Your task to perform on an android device: Add razer huntsman to the cart on target.com, then select checkout. Image 0: 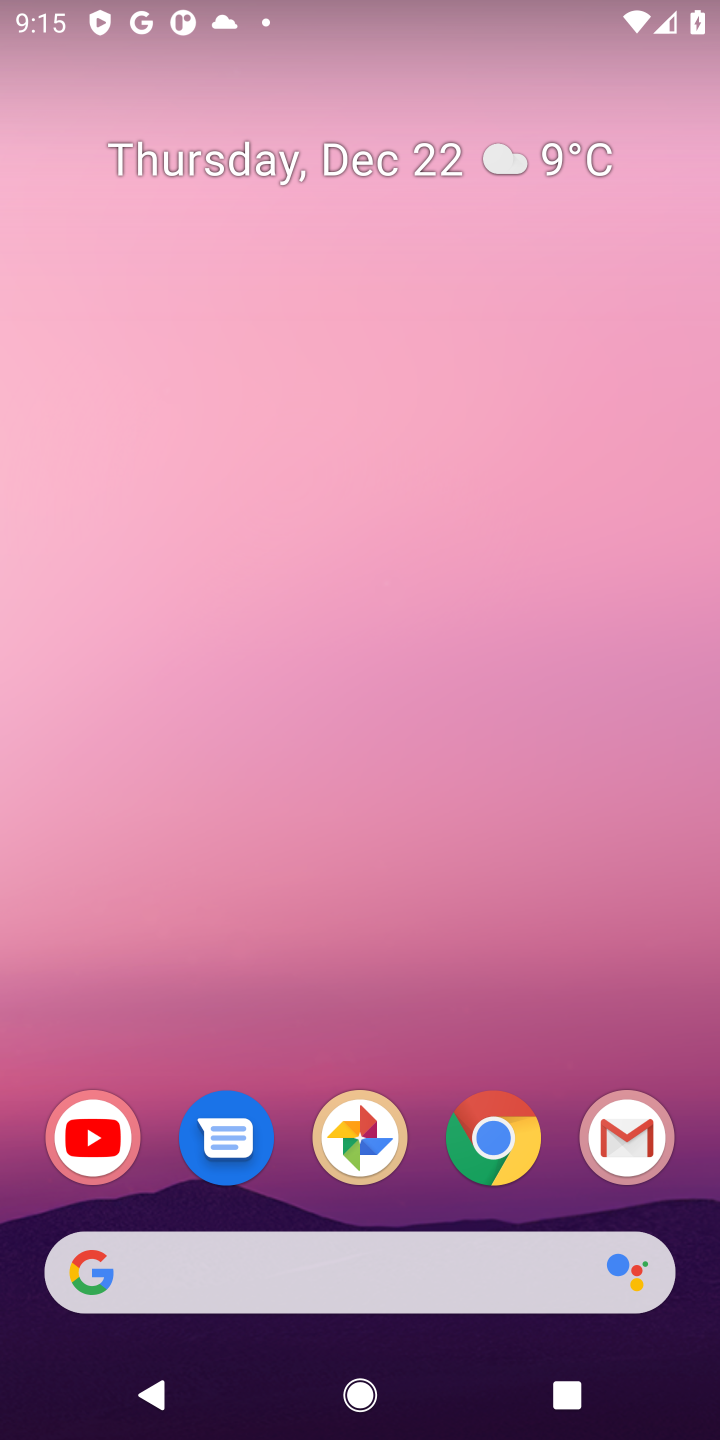
Step 0: click (492, 1138)
Your task to perform on an android device: Add razer huntsman to the cart on target.com, then select checkout. Image 1: 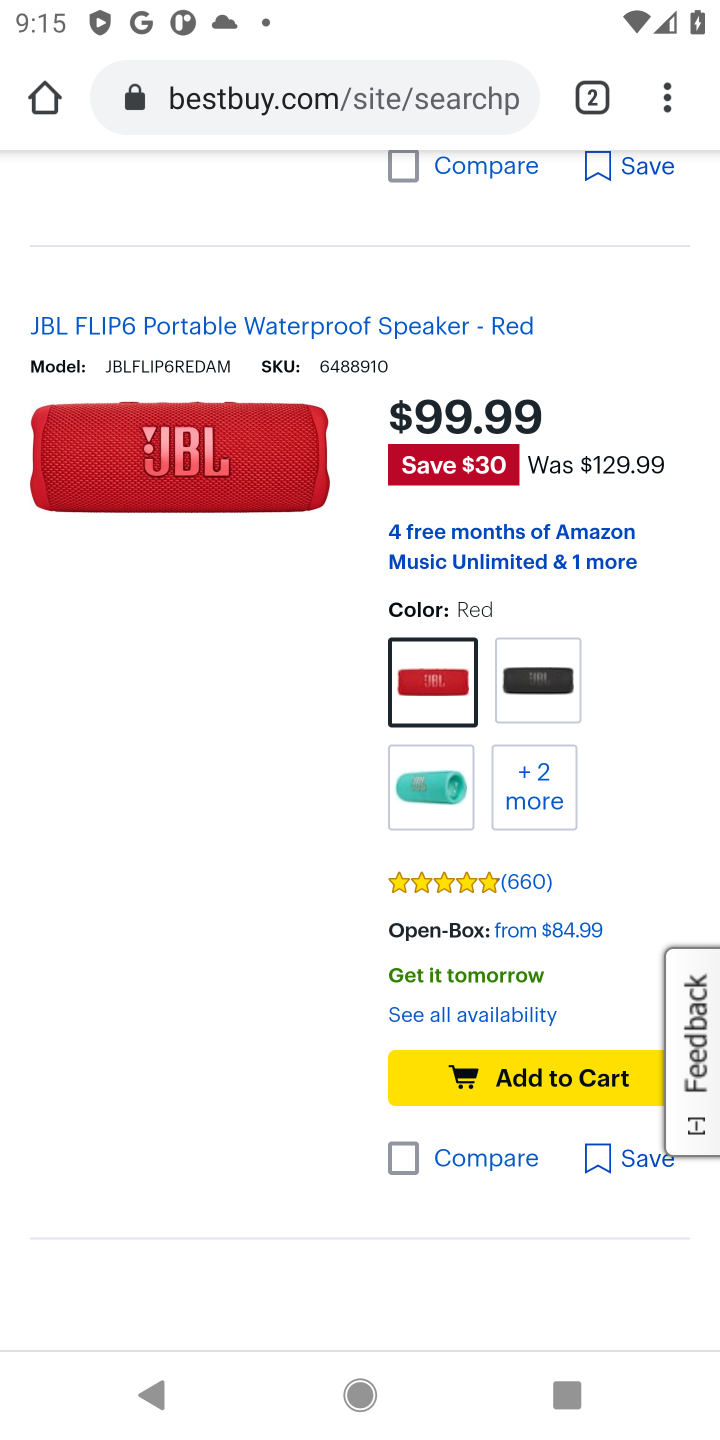
Step 1: click (195, 92)
Your task to perform on an android device: Add razer huntsman to the cart on target.com, then select checkout. Image 2: 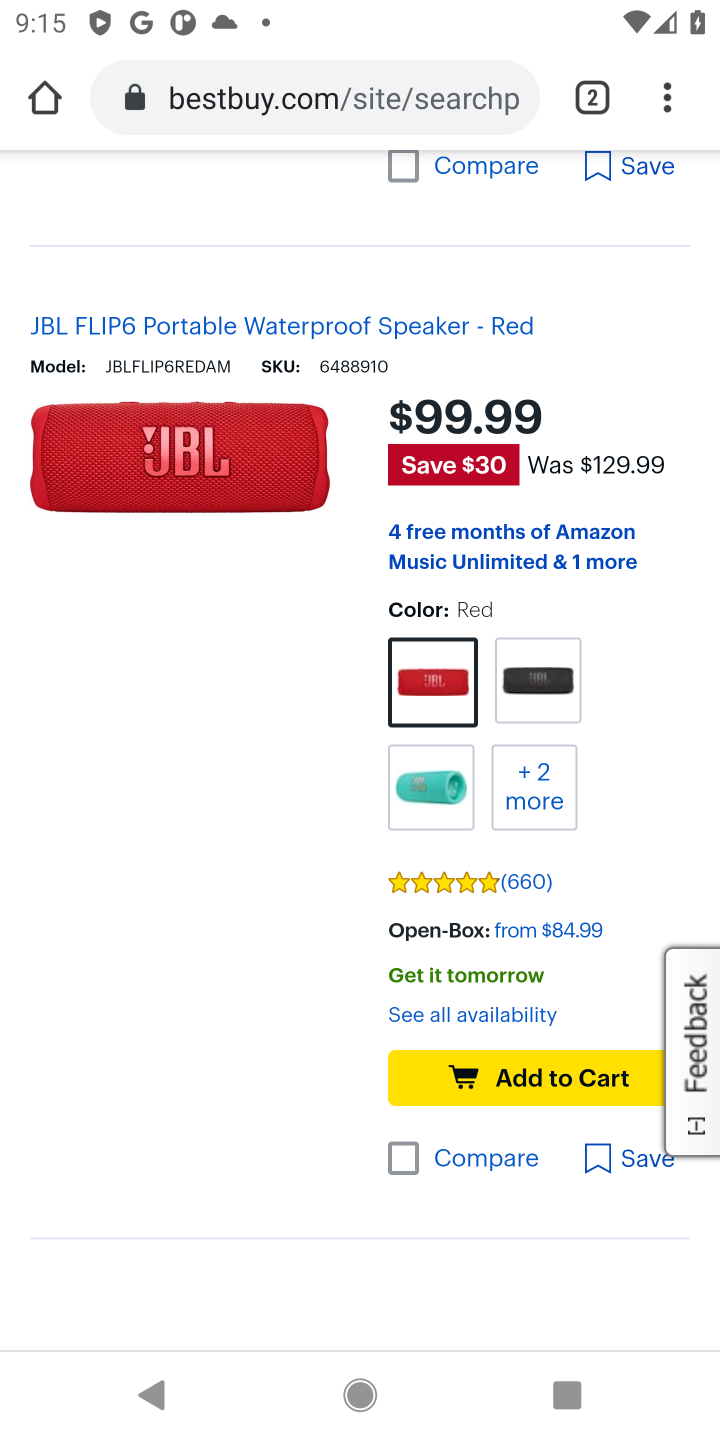
Step 2: click (195, 92)
Your task to perform on an android device: Add razer huntsman to the cart on target.com, then select checkout. Image 3: 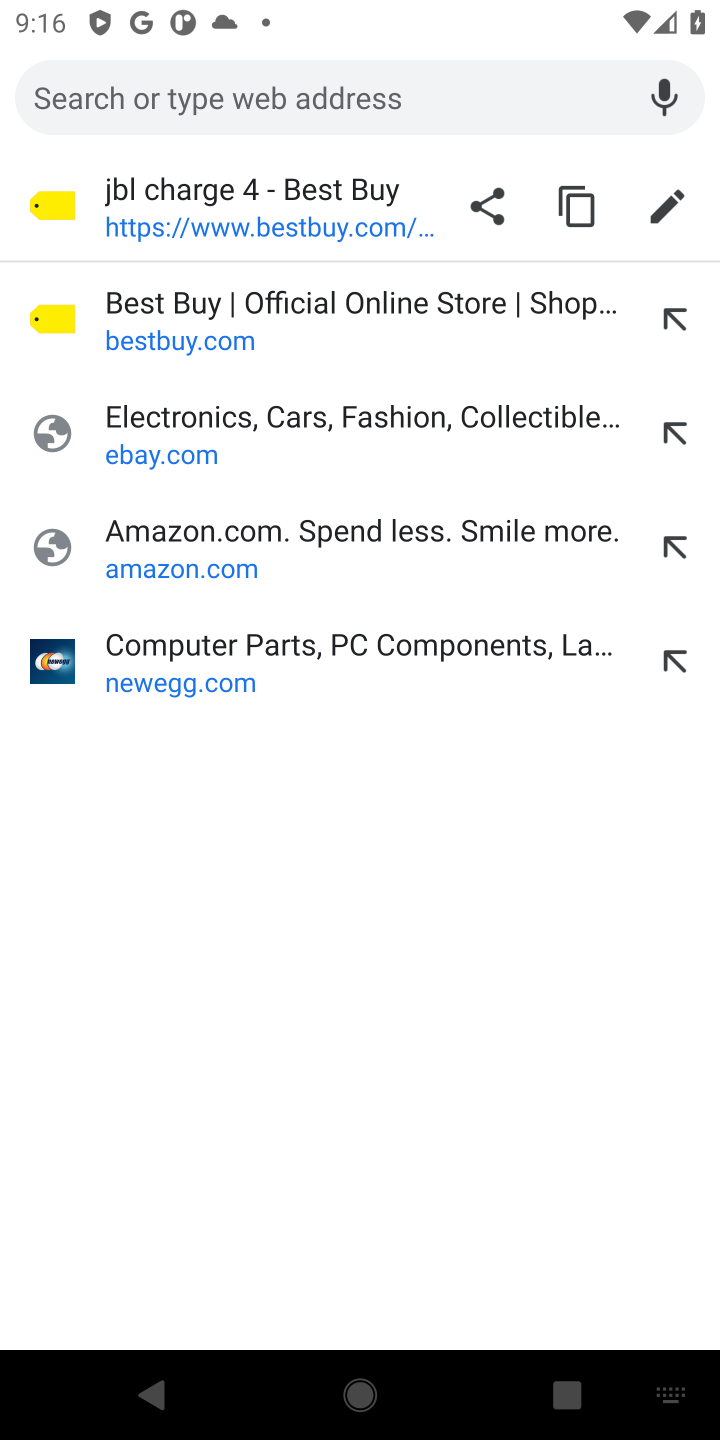
Step 3: type "target"
Your task to perform on an android device: Add razer huntsman to the cart on target.com, then select checkout. Image 4: 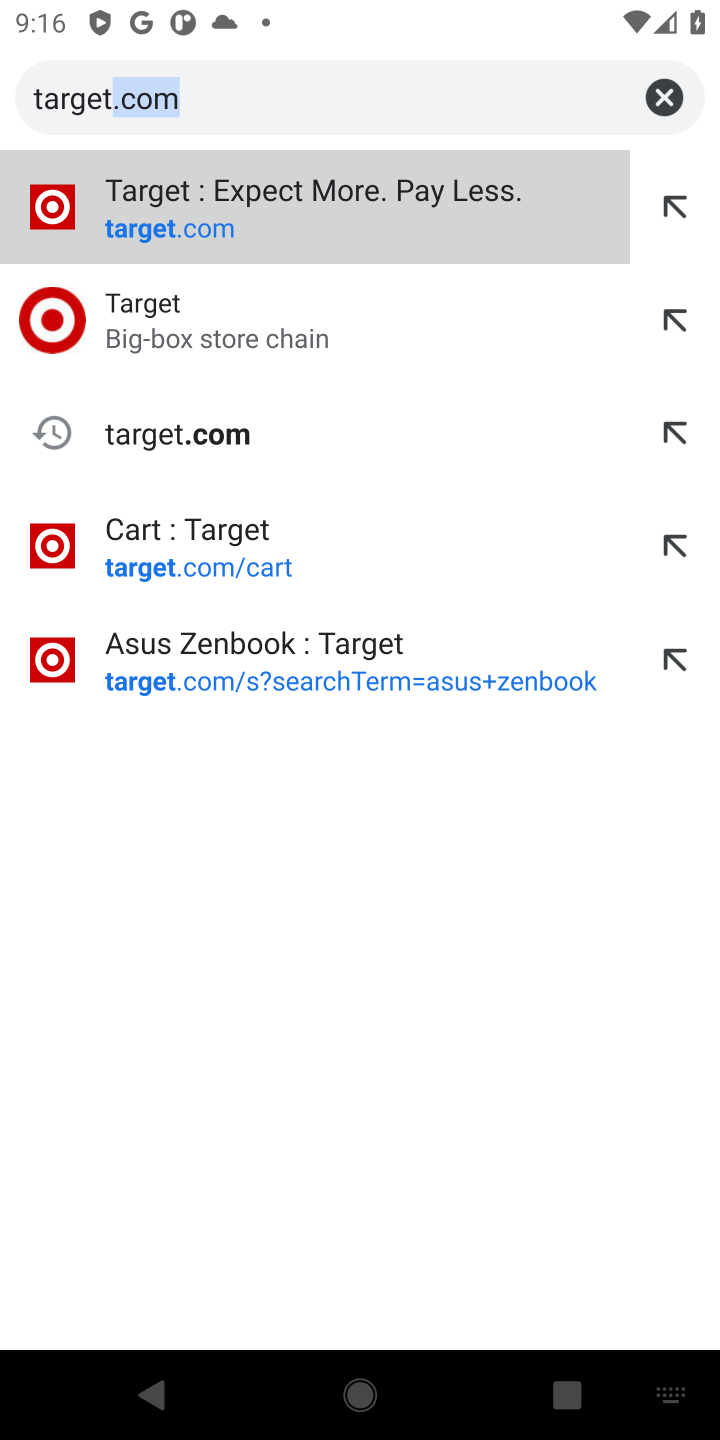
Step 4: click (252, 206)
Your task to perform on an android device: Add razer huntsman to the cart on target.com, then select checkout. Image 5: 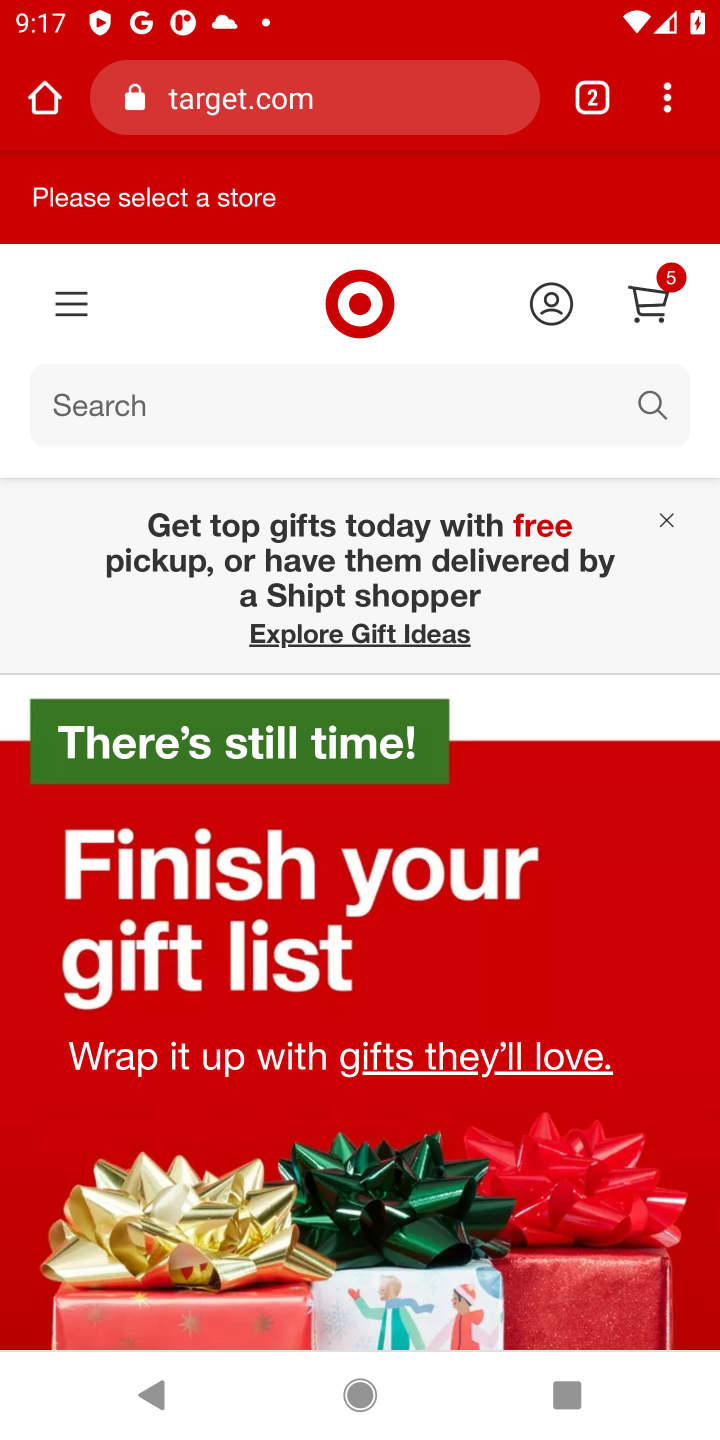
Step 5: click (314, 416)
Your task to perform on an android device: Add razer huntsman to the cart on target.com, then select checkout. Image 6: 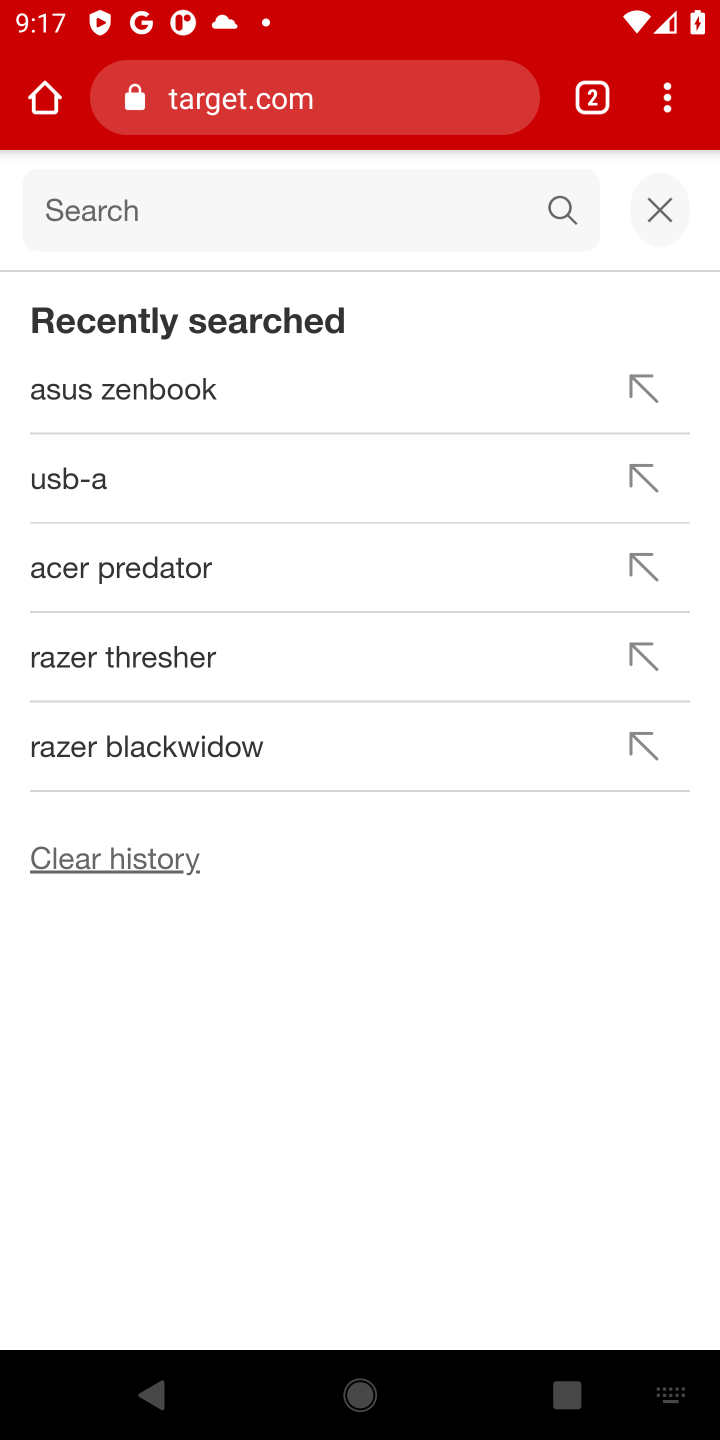
Step 6: type "razer huntsman"
Your task to perform on an android device: Add razer huntsman to the cart on target.com, then select checkout. Image 7: 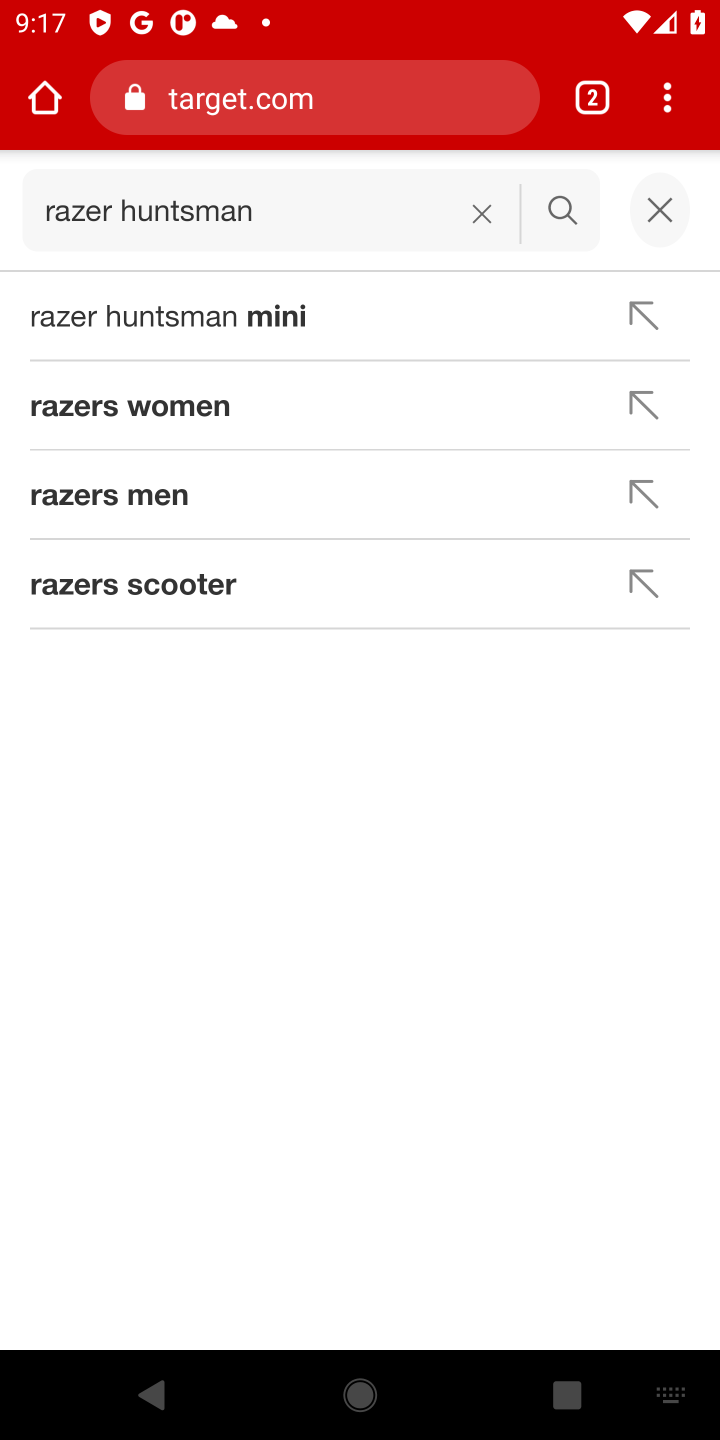
Step 7: click (565, 215)
Your task to perform on an android device: Add razer huntsman to the cart on target.com, then select checkout. Image 8: 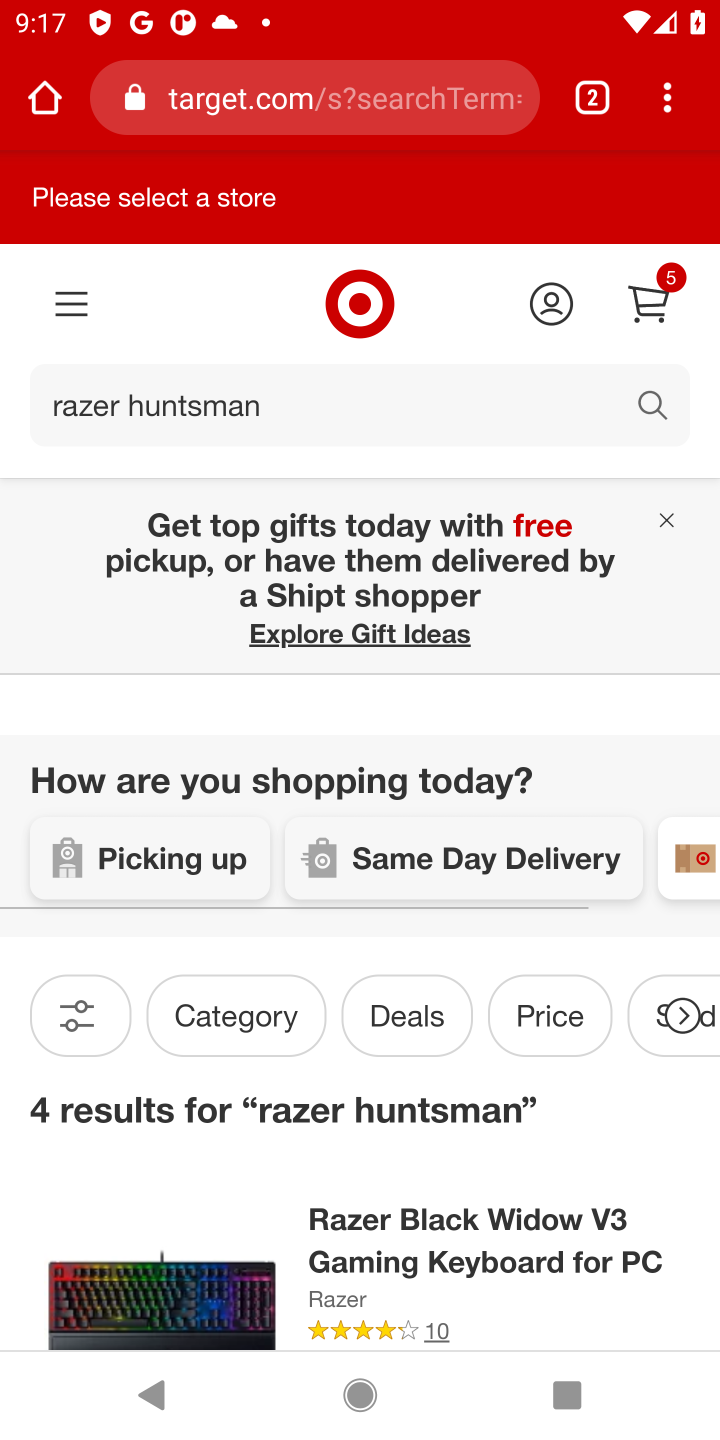
Step 8: task complete